Your task to perform on an android device: Turn on the flashlight Image 0: 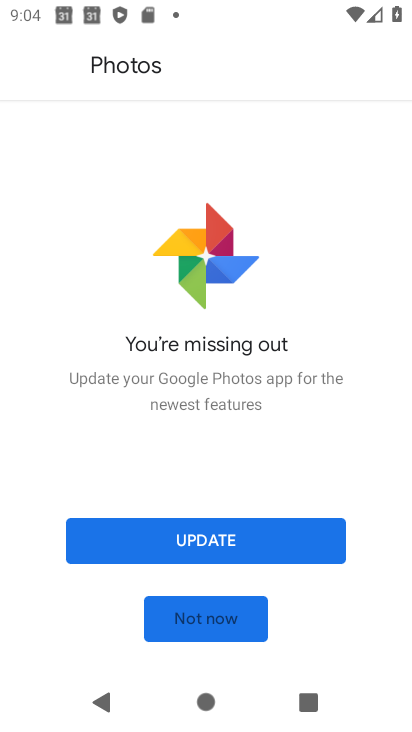
Step 0: press home button
Your task to perform on an android device: Turn on the flashlight Image 1: 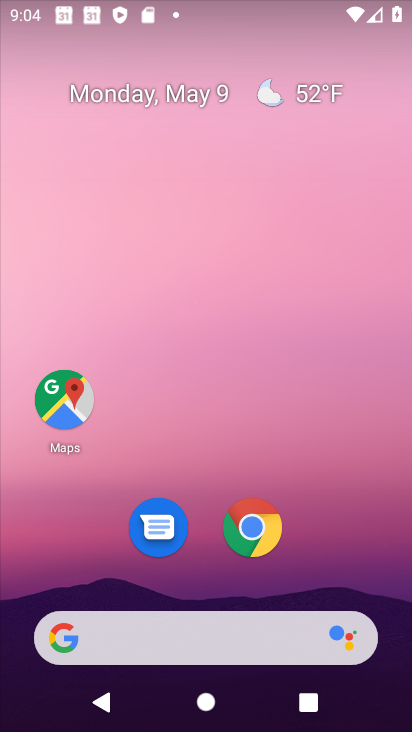
Step 1: drag from (354, 538) to (350, 146)
Your task to perform on an android device: Turn on the flashlight Image 2: 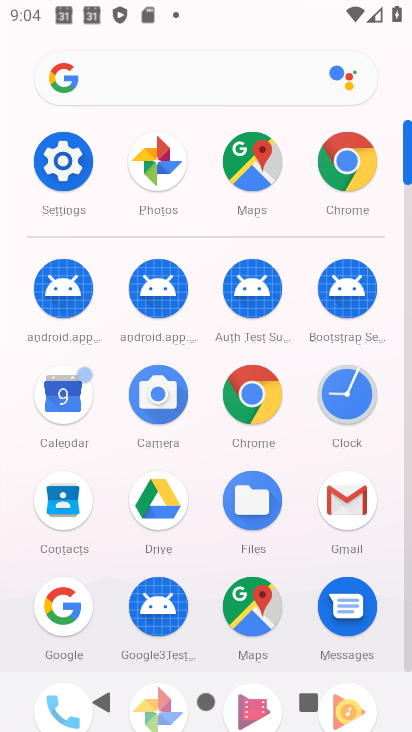
Step 2: click (55, 177)
Your task to perform on an android device: Turn on the flashlight Image 3: 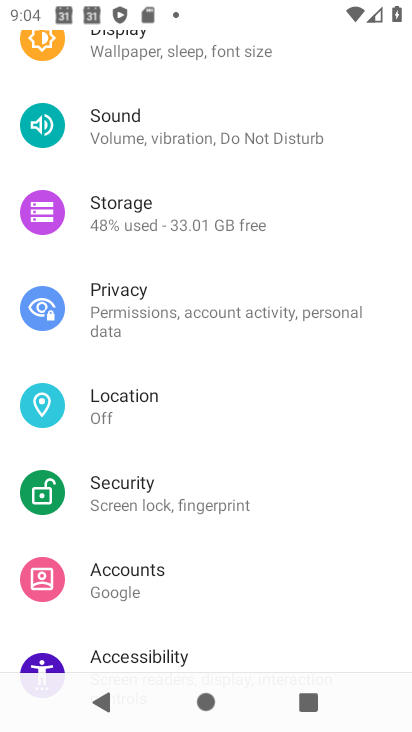
Step 3: drag from (188, 53) to (248, 474)
Your task to perform on an android device: Turn on the flashlight Image 4: 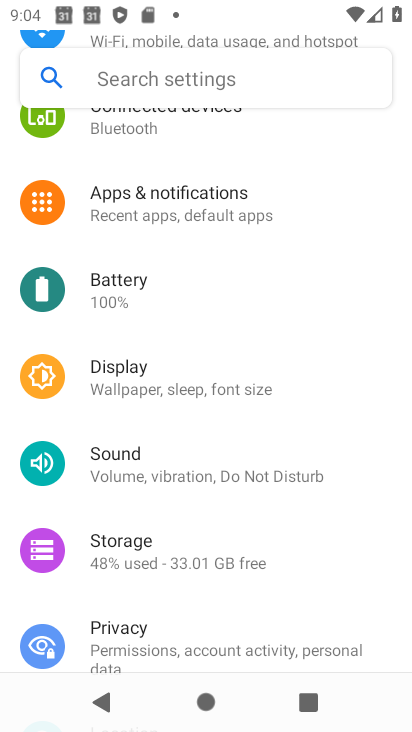
Step 4: click (193, 74)
Your task to perform on an android device: Turn on the flashlight Image 5: 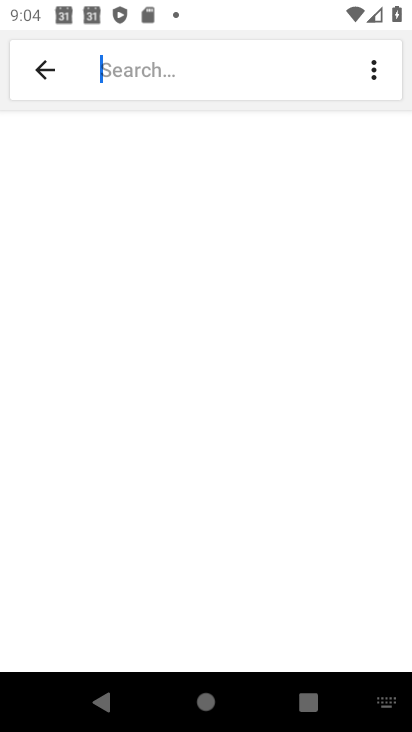
Step 5: type "flashlight"
Your task to perform on an android device: Turn on the flashlight Image 6: 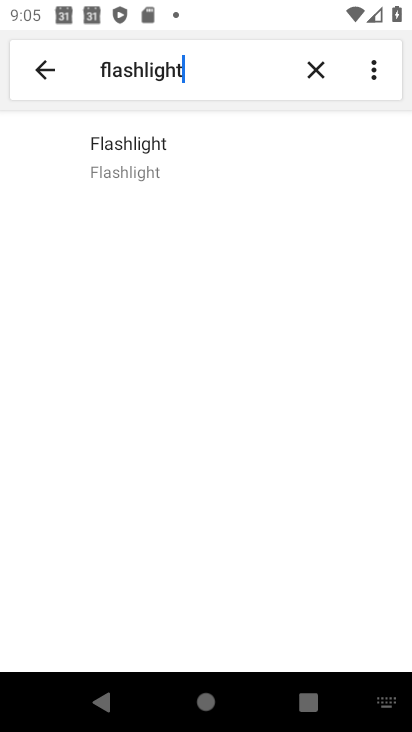
Step 6: task complete